Your task to perform on an android device: visit the assistant section in the google photos Image 0: 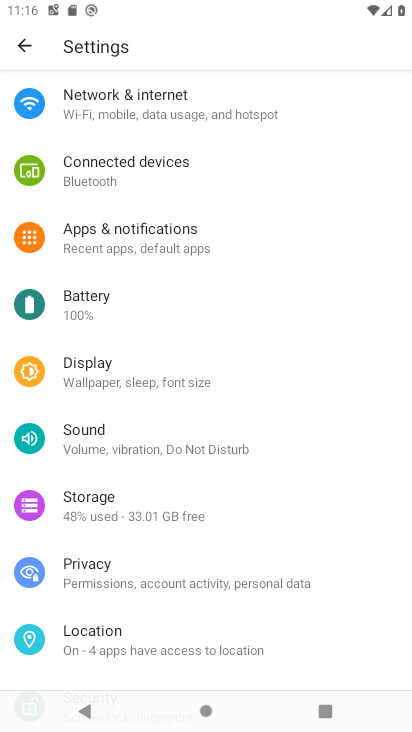
Step 0: click (28, 41)
Your task to perform on an android device: visit the assistant section in the google photos Image 1: 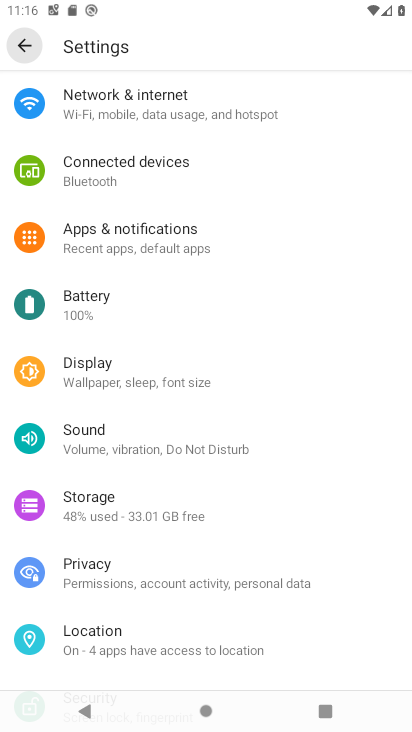
Step 1: click (27, 42)
Your task to perform on an android device: visit the assistant section in the google photos Image 2: 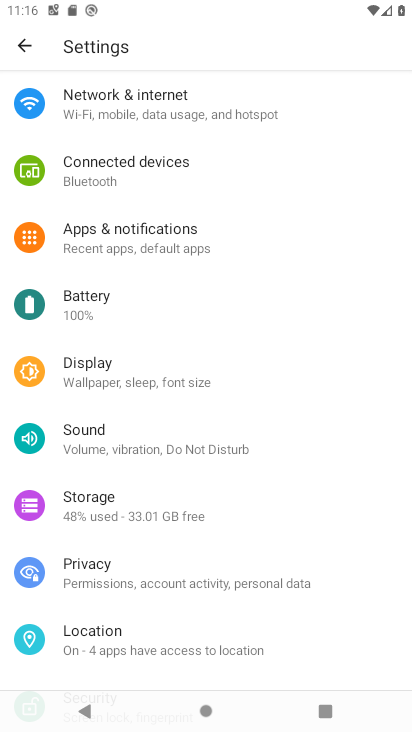
Step 2: click (28, 43)
Your task to perform on an android device: visit the assistant section in the google photos Image 3: 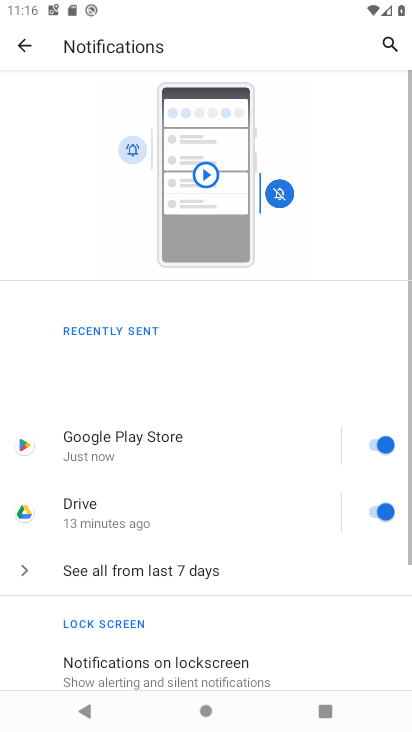
Step 3: click (25, 45)
Your task to perform on an android device: visit the assistant section in the google photos Image 4: 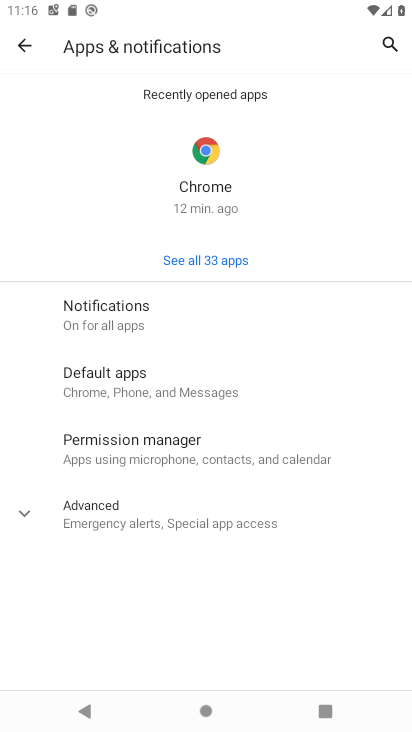
Step 4: click (25, 44)
Your task to perform on an android device: visit the assistant section in the google photos Image 5: 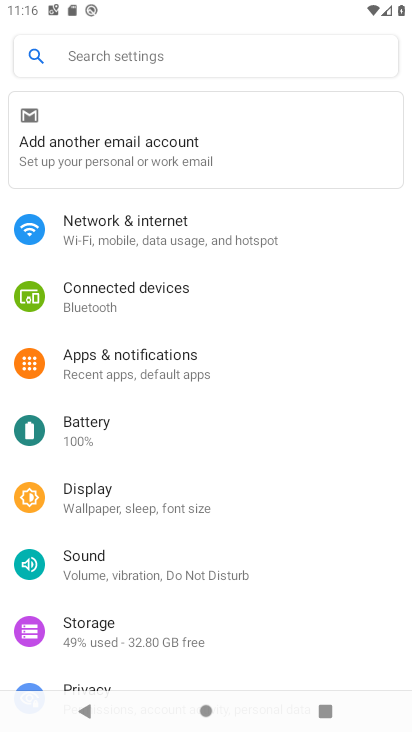
Step 5: press back button
Your task to perform on an android device: visit the assistant section in the google photos Image 6: 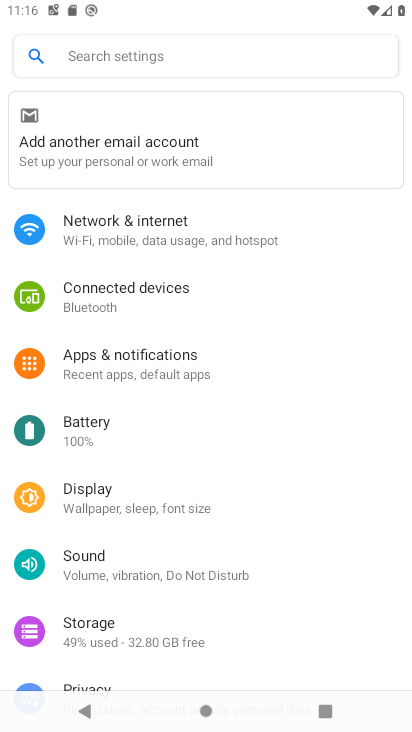
Step 6: press back button
Your task to perform on an android device: visit the assistant section in the google photos Image 7: 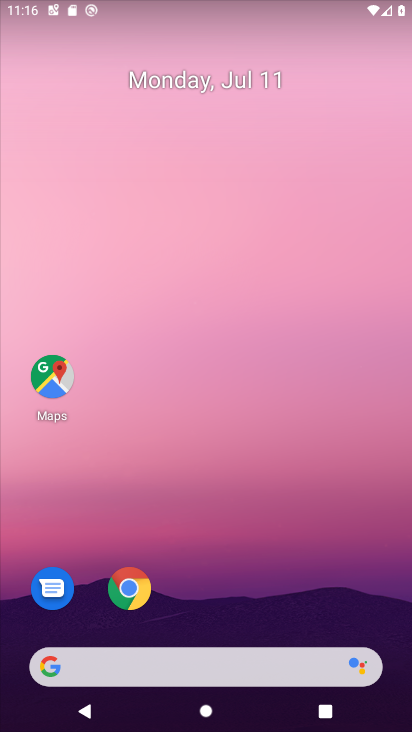
Step 7: drag from (275, 685) to (217, 29)
Your task to perform on an android device: visit the assistant section in the google photos Image 8: 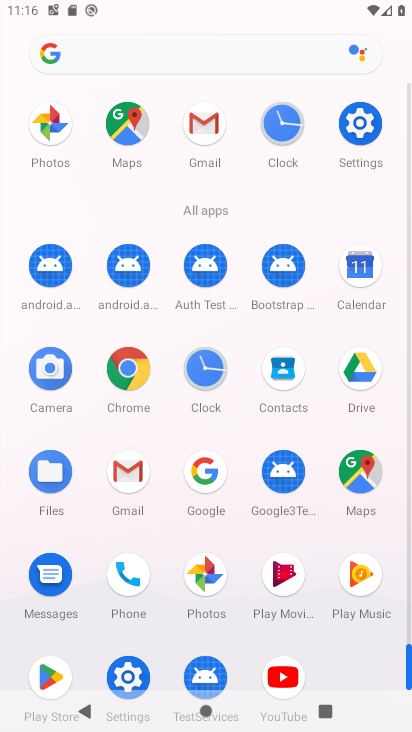
Step 8: click (203, 573)
Your task to perform on an android device: visit the assistant section in the google photos Image 9: 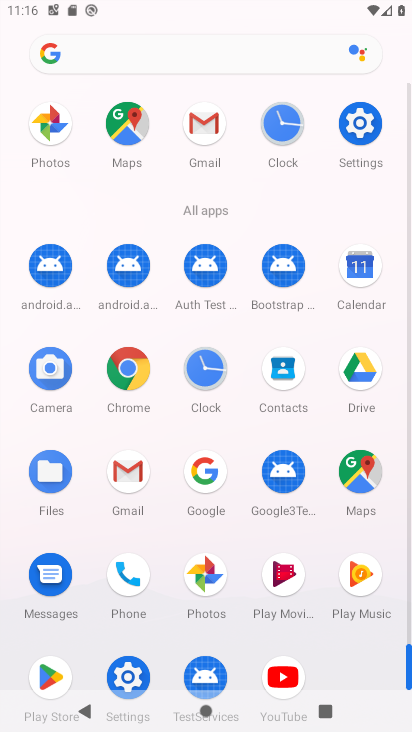
Step 9: click (206, 575)
Your task to perform on an android device: visit the assistant section in the google photos Image 10: 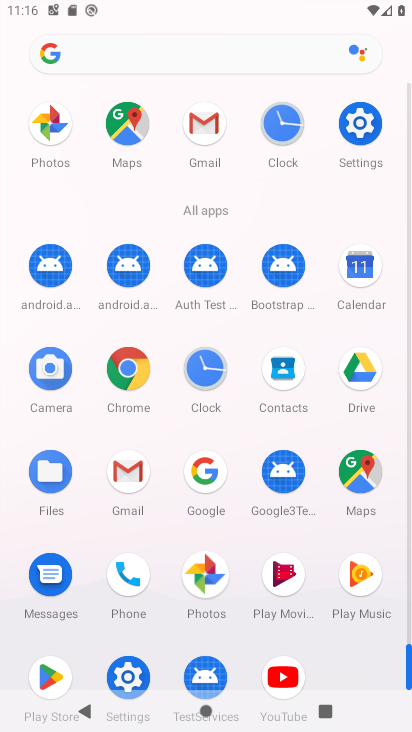
Step 10: click (208, 575)
Your task to perform on an android device: visit the assistant section in the google photos Image 11: 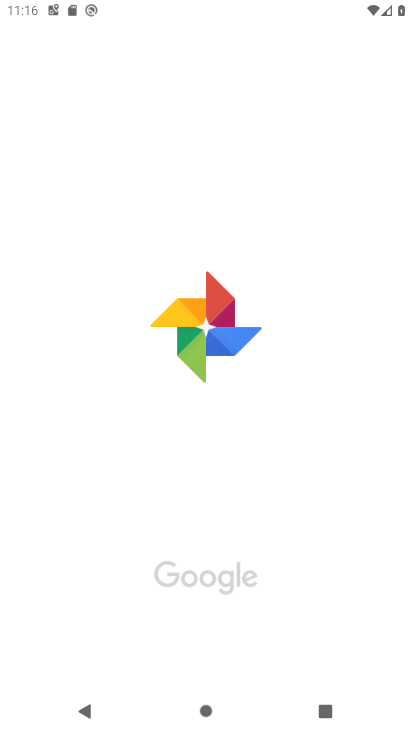
Step 11: click (214, 572)
Your task to perform on an android device: visit the assistant section in the google photos Image 12: 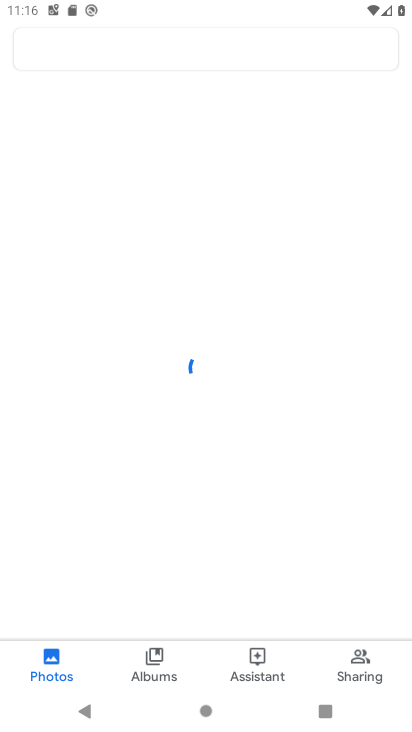
Step 12: click (252, 660)
Your task to perform on an android device: visit the assistant section in the google photos Image 13: 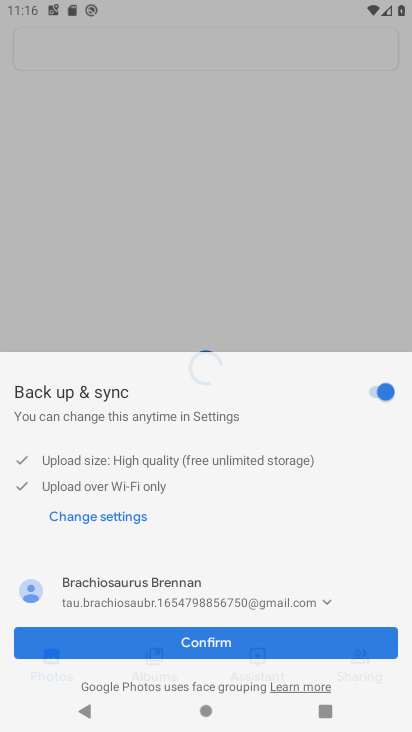
Step 13: click (255, 663)
Your task to perform on an android device: visit the assistant section in the google photos Image 14: 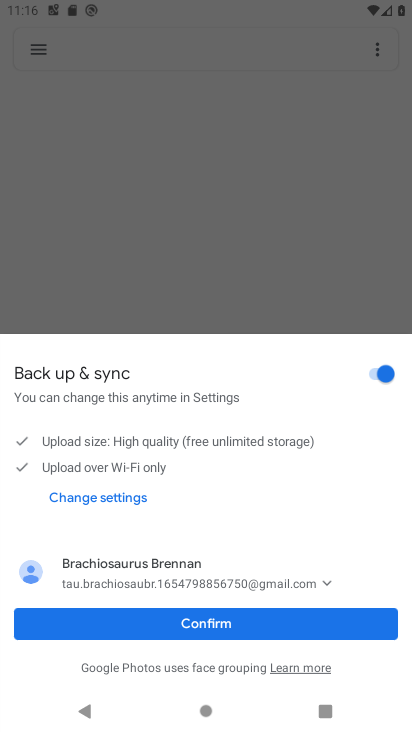
Step 14: task complete